Your task to perform on an android device: Open Yahoo.com Image 0: 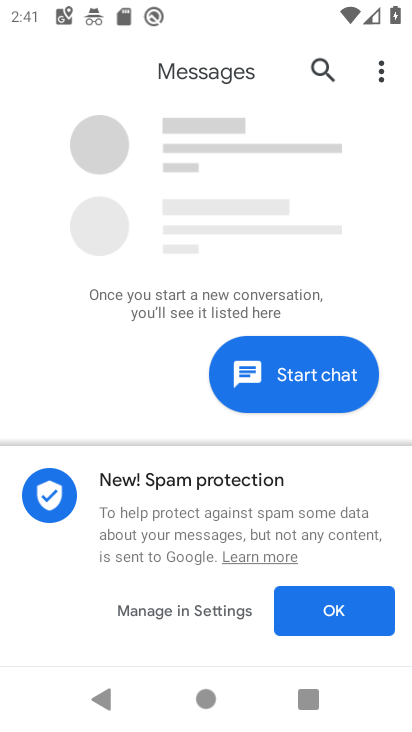
Step 0: press home button
Your task to perform on an android device: Open Yahoo.com Image 1: 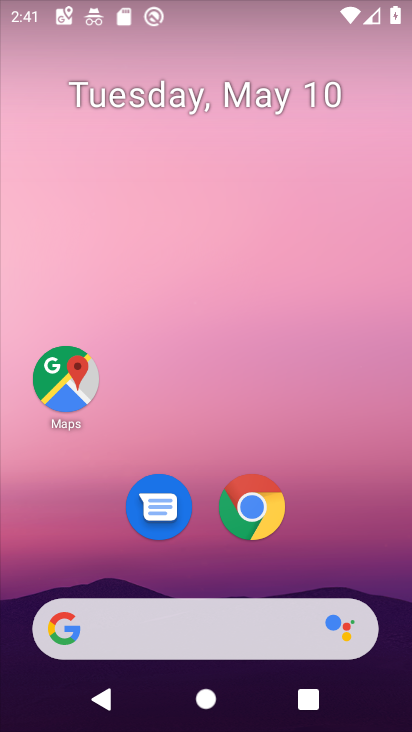
Step 1: click (253, 500)
Your task to perform on an android device: Open Yahoo.com Image 2: 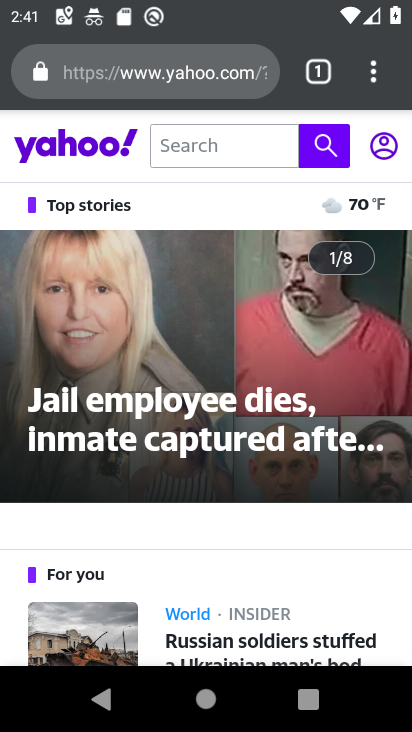
Step 2: click (112, 76)
Your task to perform on an android device: Open Yahoo.com Image 3: 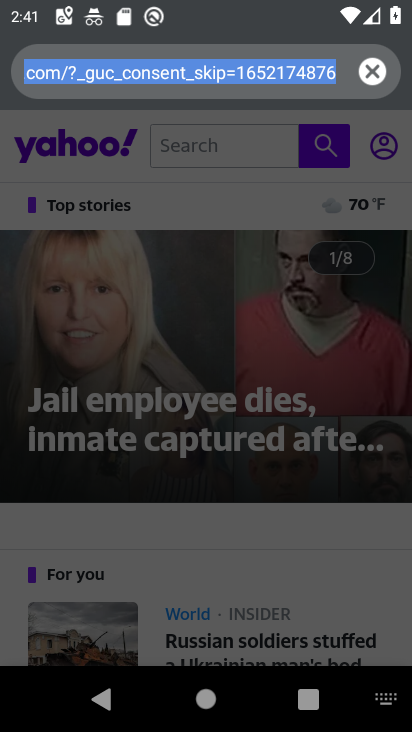
Step 3: type "yahoo.com"
Your task to perform on an android device: Open Yahoo.com Image 4: 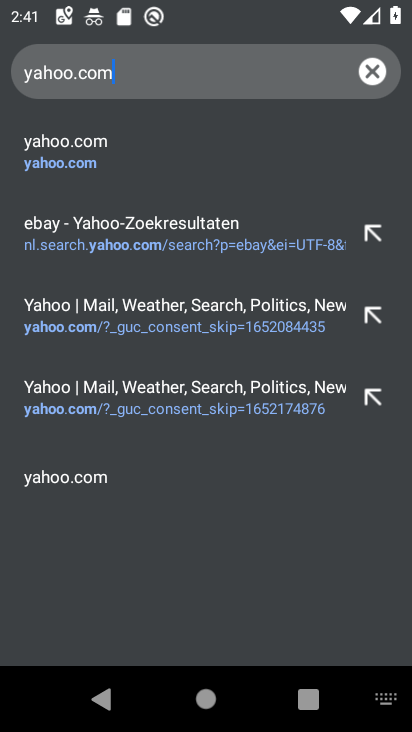
Step 4: click (85, 146)
Your task to perform on an android device: Open Yahoo.com Image 5: 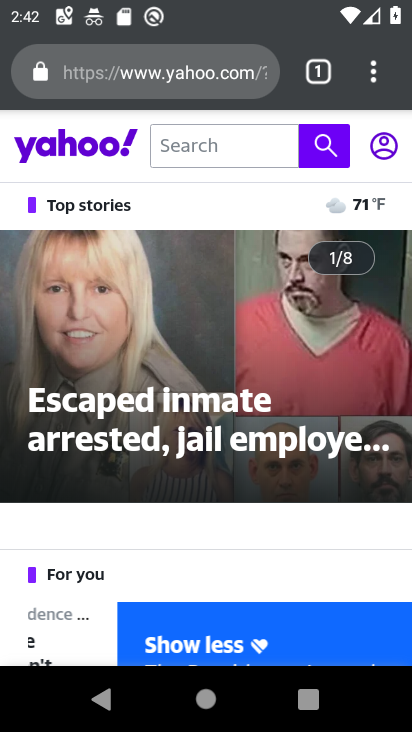
Step 5: task complete